Your task to perform on an android device: turn off airplane mode Image 0: 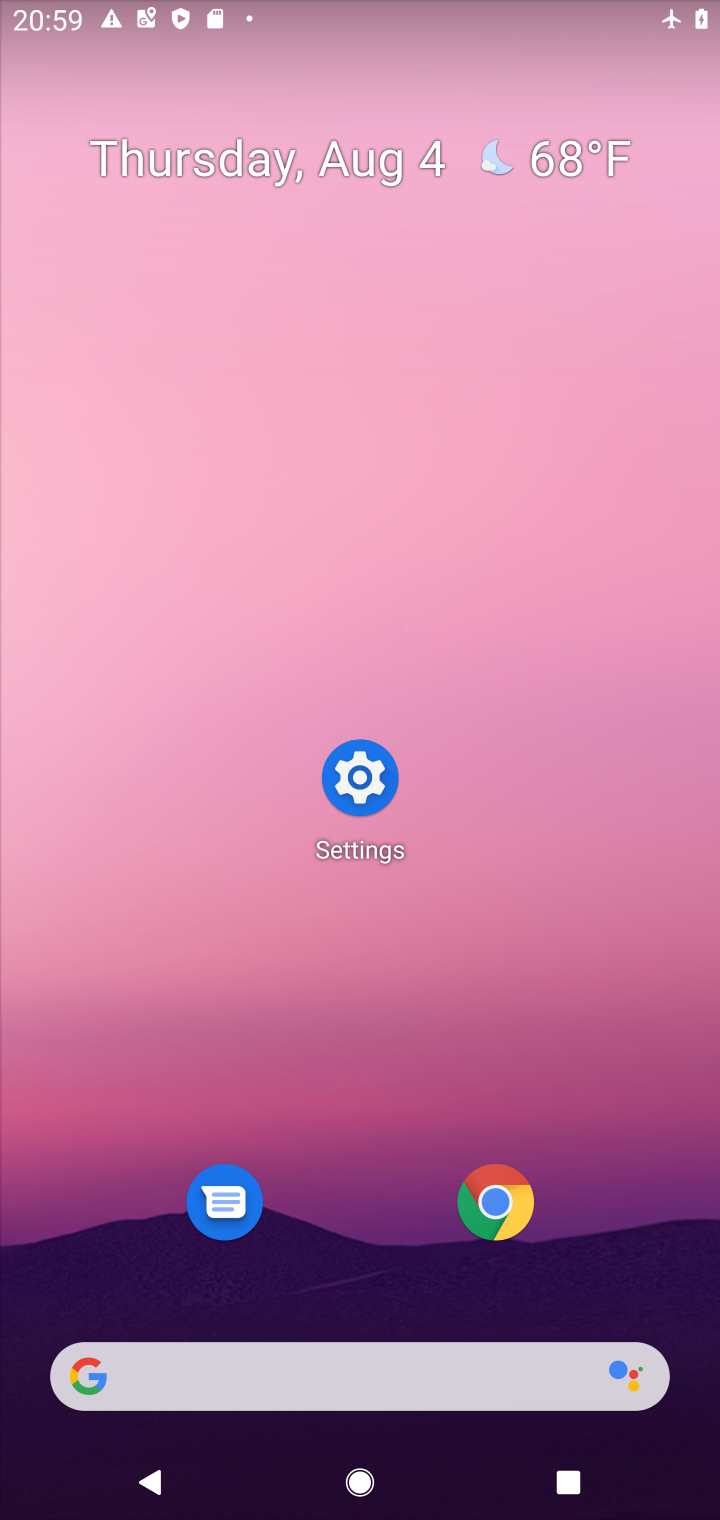
Step 0: drag from (355, 1261) to (313, 161)
Your task to perform on an android device: turn off airplane mode Image 1: 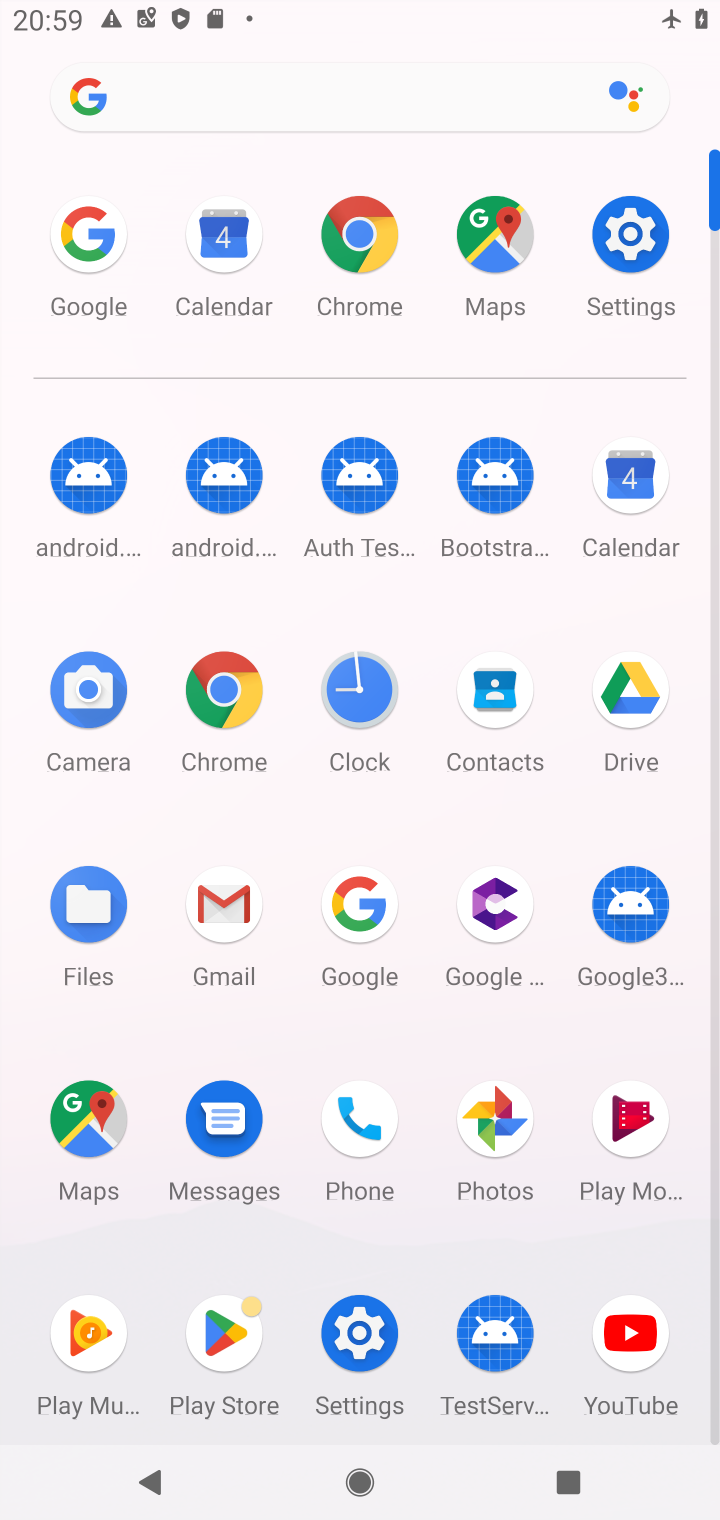
Step 1: click (632, 251)
Your task to perform on an android device: turn off airplane mode Image 2: 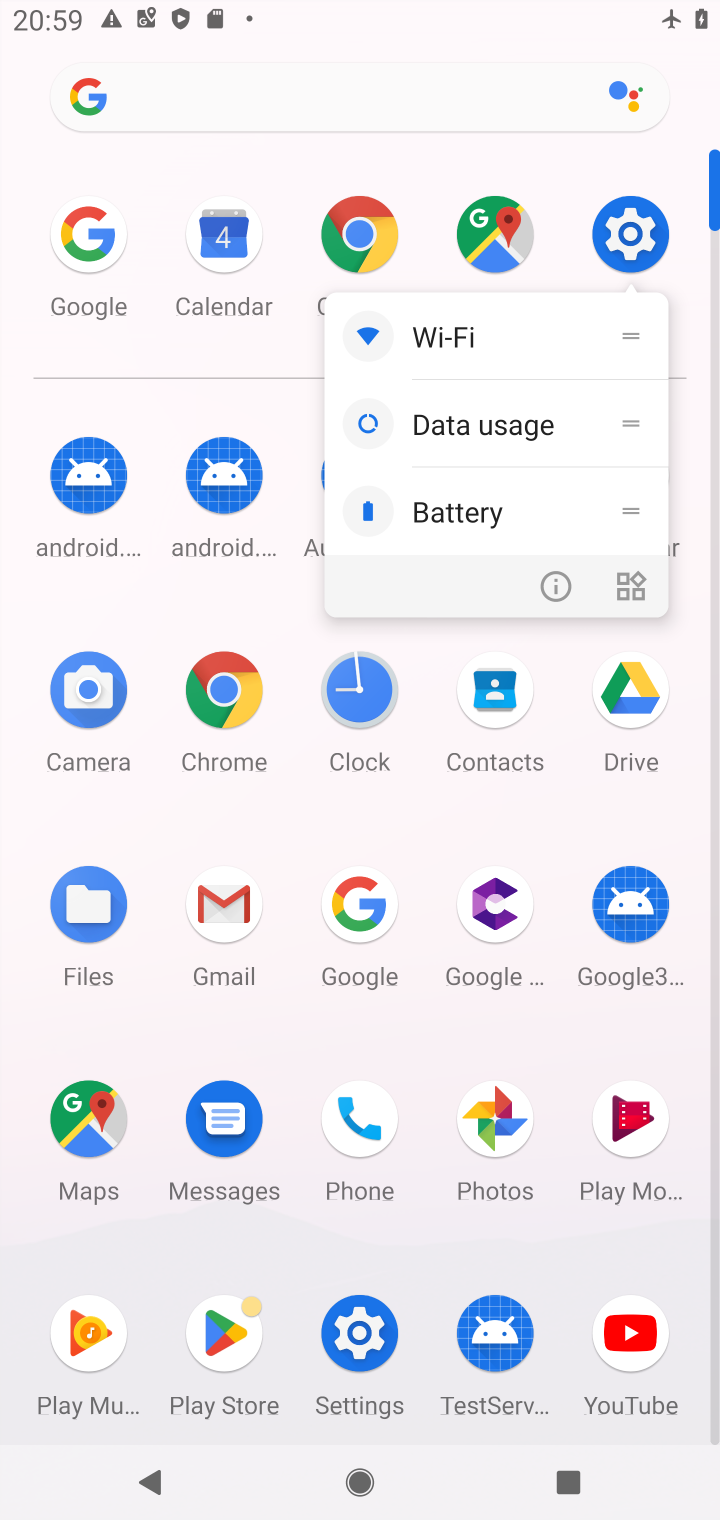
Step 2: click (632, 251)
Your task to perform on an android device: turn off airplane mode Image 3: 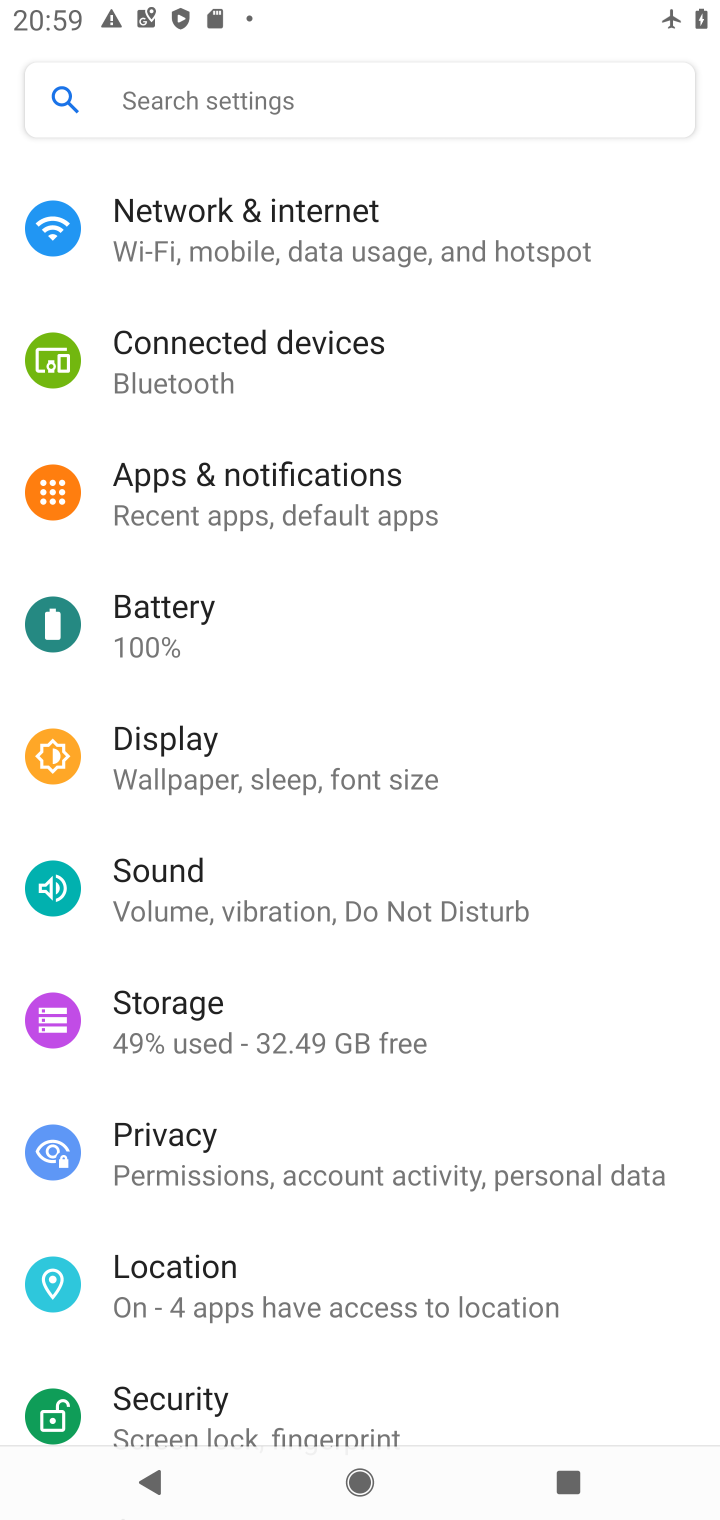
Step 3: click (191, 244)
Your task to perform on an android device: turn off airplane mode Image 4: 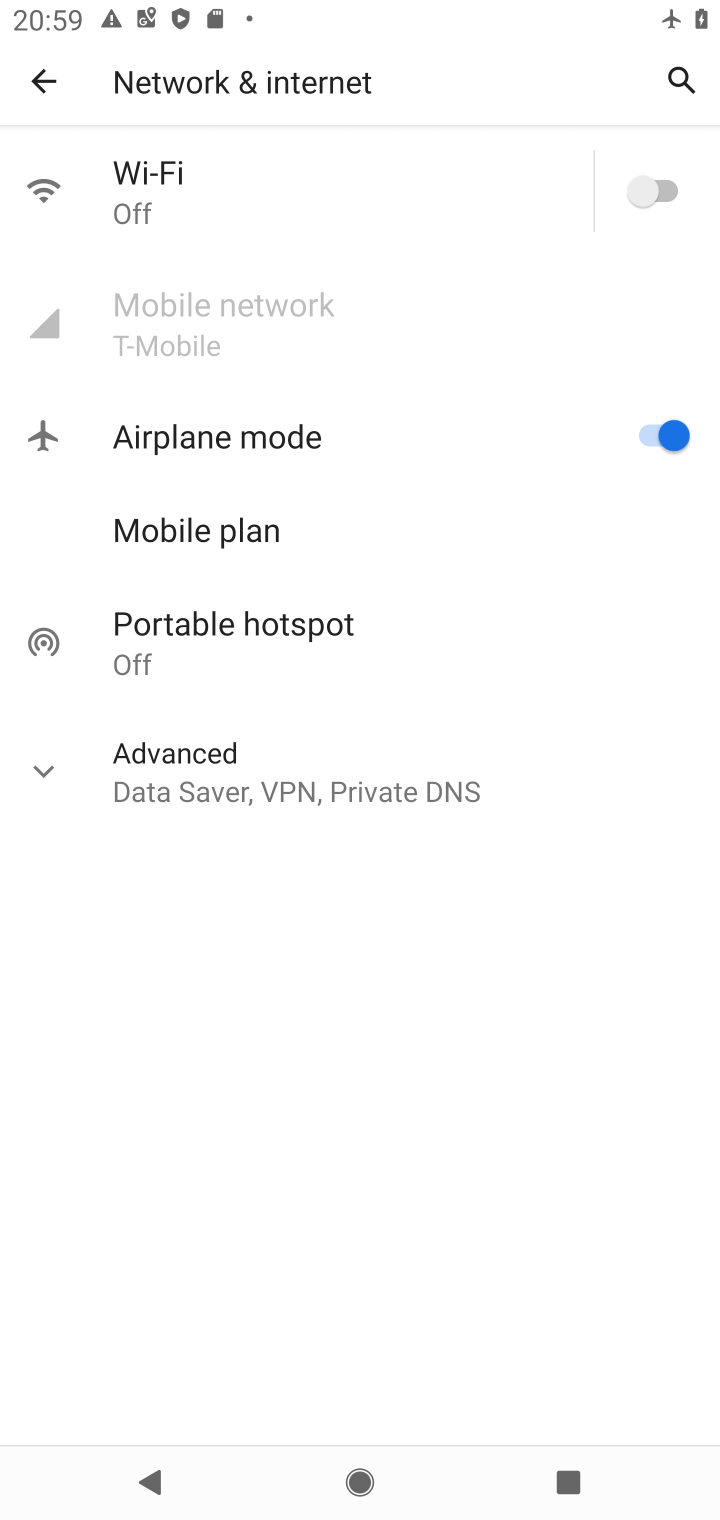
Step 4: click (613, 427)
Your task to perform on an android device: turn off airplane mode Image 5: 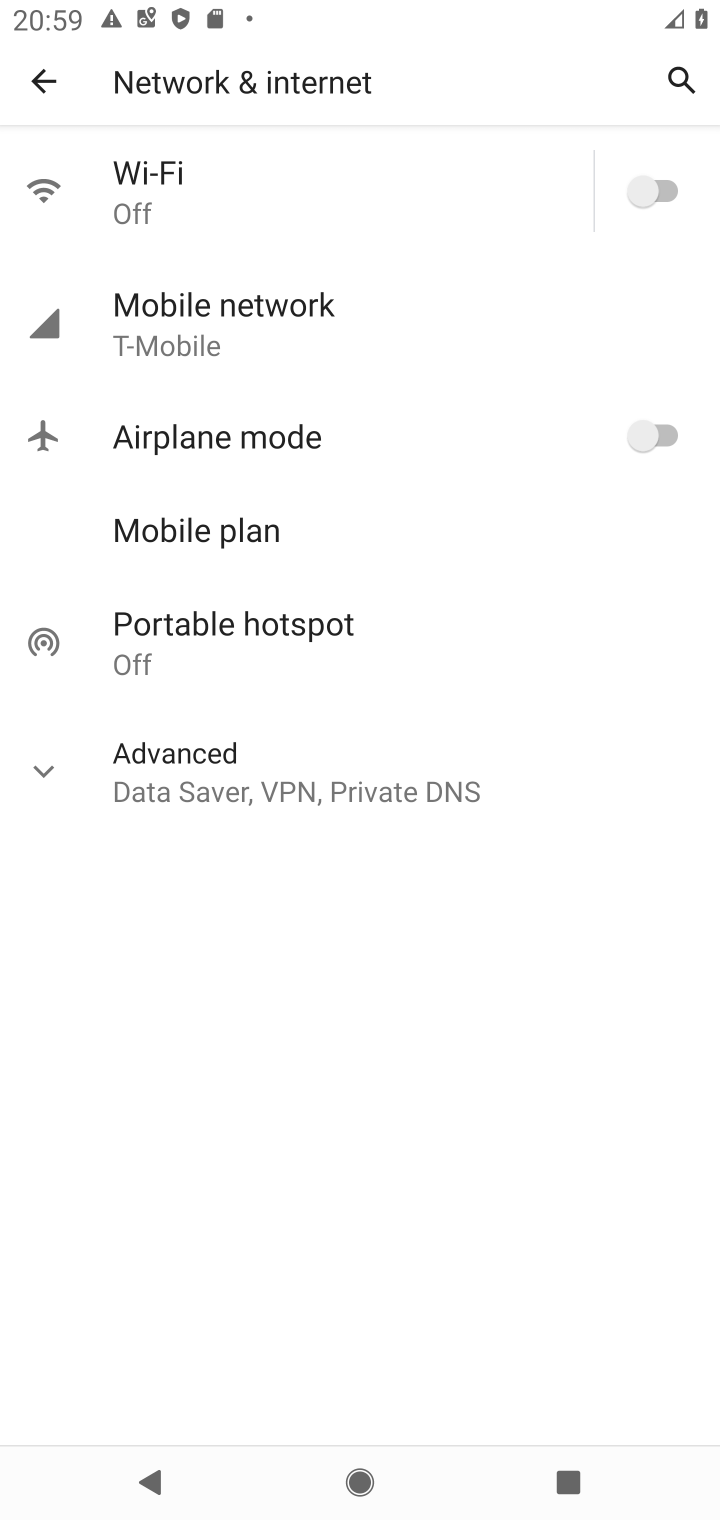
Step 5: task complete